Your task to perform on an android device: Open accessibility settings Image 0: 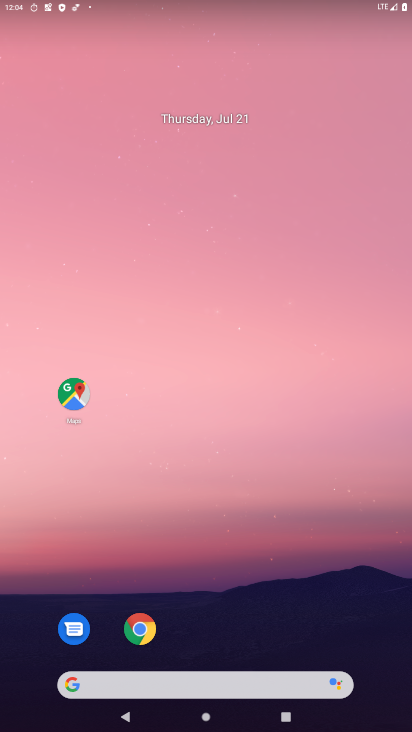
Step 0: drag from (122, 645) to (160, 201)
Your task to perform on an android device: Open accessibility settings Image 1: 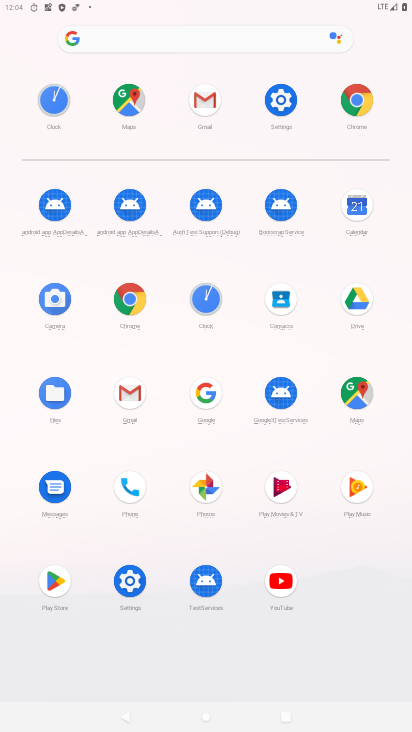
Step 1: click (289, 108)
Your task to perform on an android device: Open accessibility settings Image 2: 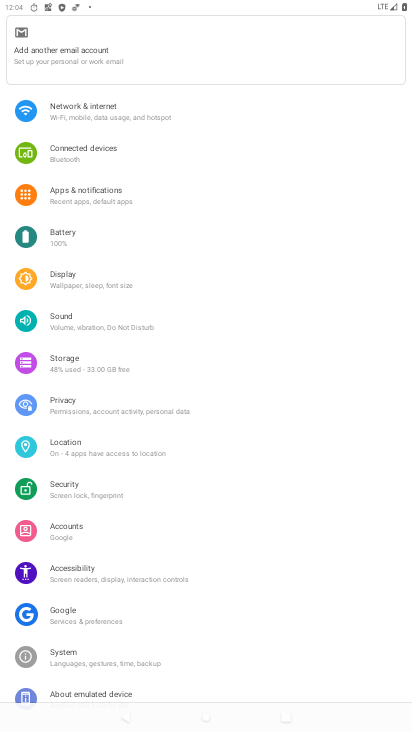
Step 2: click (98, 569)
Your task to perform on an android device: Open accessibility settings Image 3: 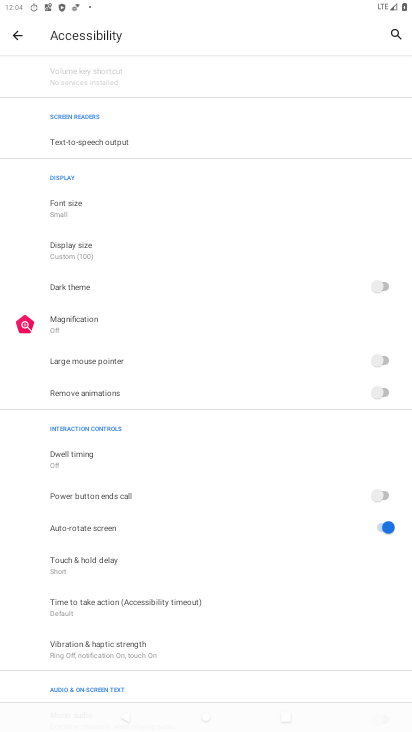
Step 3: task complete